Your task to perform on an android device: Open the stopwatch Image 0: 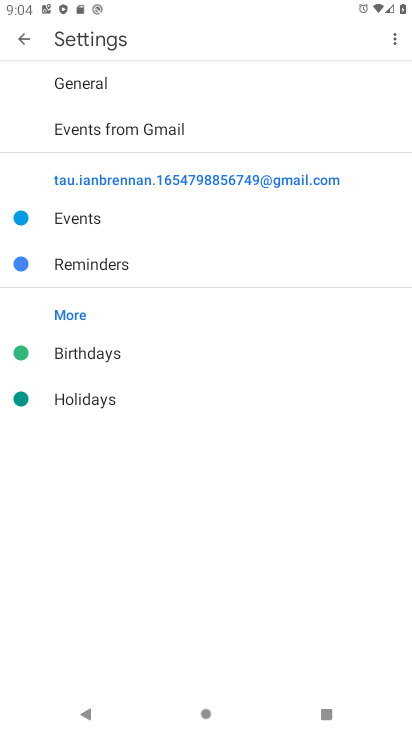
Step 0: press home button
Your task to perform on an android device: Open the stopwatch Image 1: 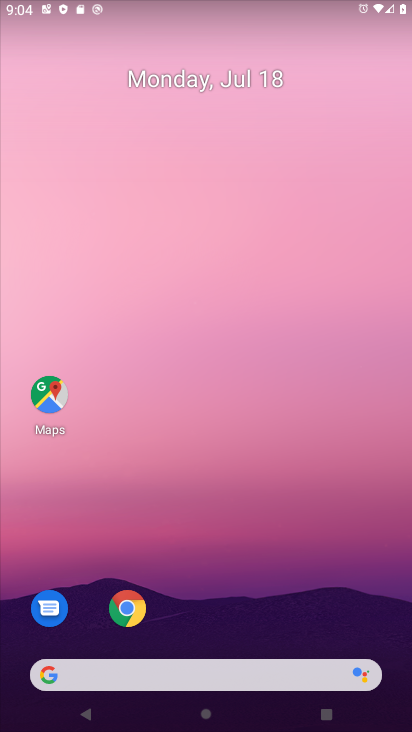
Step 1: drag from (234, 715) to (234, 138)
Your task to perform on an android device: Open the stopwatch Image 2: 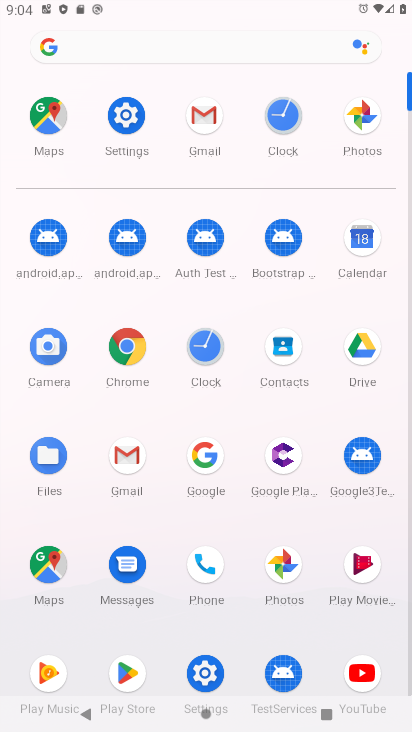
Step 2: click (206, 358)
Your task to perform on an android device: Open the stopwatch Image 3: 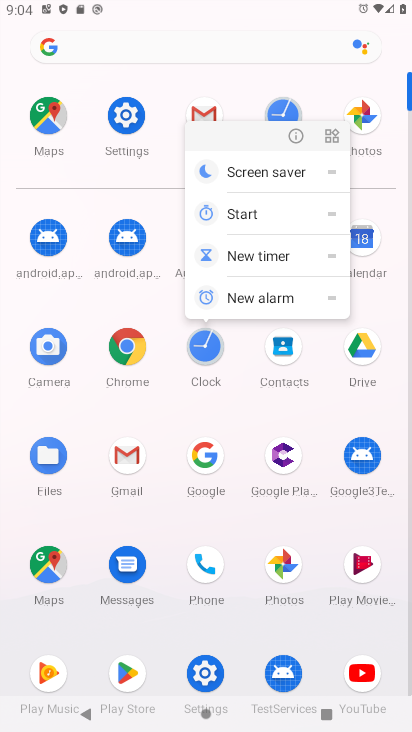
Step 3: click (204, 358)
Your task to perform on an android device: Open the stopwatch Image 4: 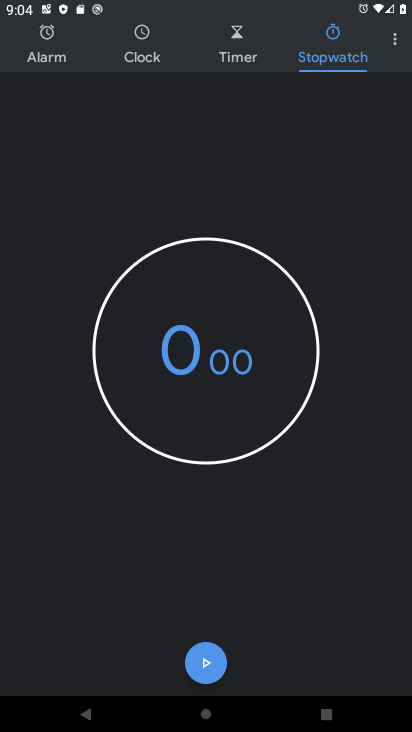
Step 4: task complete